Your task to perform on an android device: Open Google Chrome and open the bookmarks view Image 0: 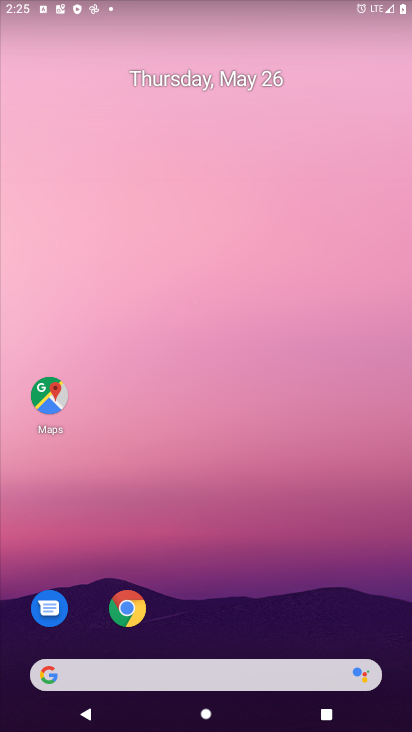
Step 0: click (131, 613)
Your task to perform on an android device: Open Google Chrome and open the bookmarks view Image 1: 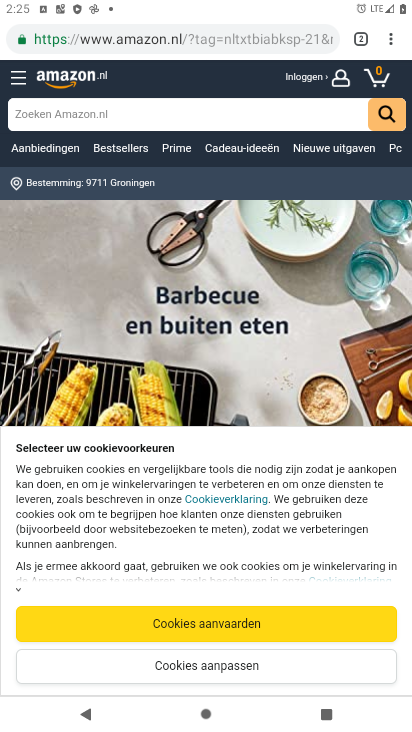
Step 1: click (389, 43)
Your task to perform on an android device: Open Google Chrome and open the bookmarks view Image 2: 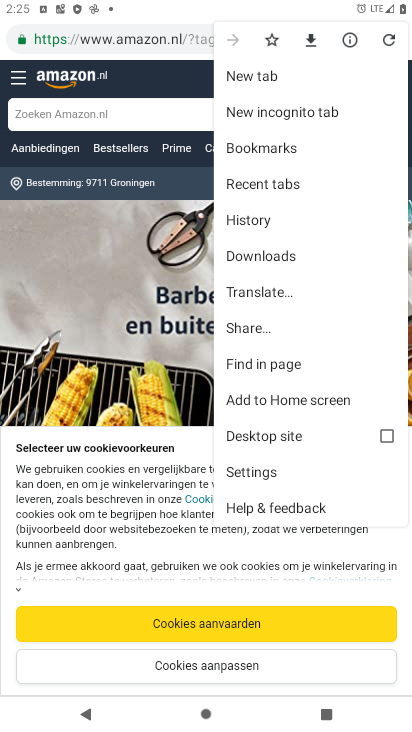
Step 2: click (255, 140)
Your task to perform on an android device: Open Google Chrome and open the bookmarks view Image 3: 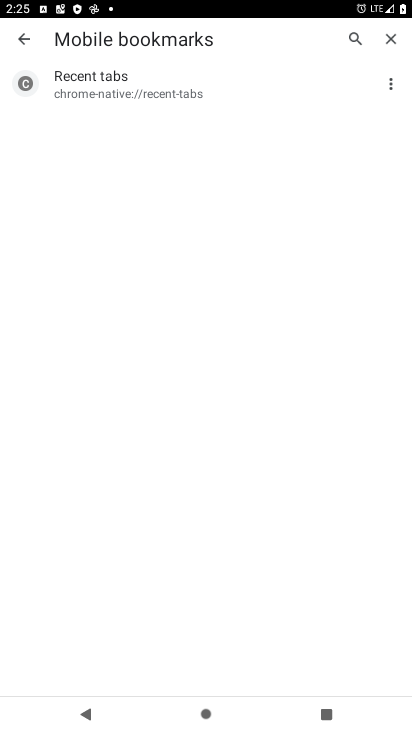
Step 3: click (92, 75)
Your task to perform on an android device: Open Google Chrome and open the bookmarks view Image 4: 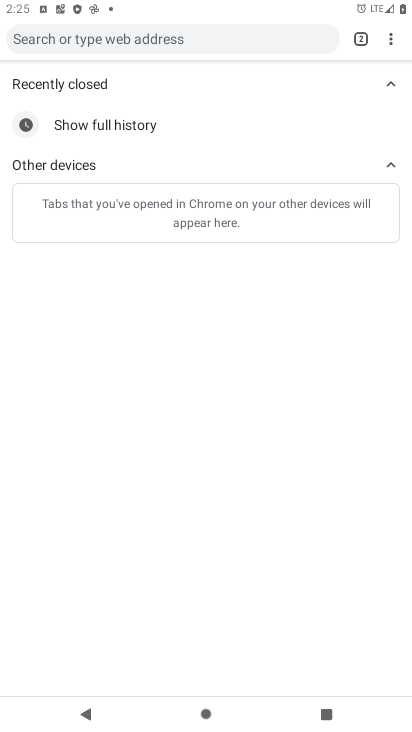
Step 4: task complete